Your task to perform on an android device: Open the calendar and show me this week's events Image 0: 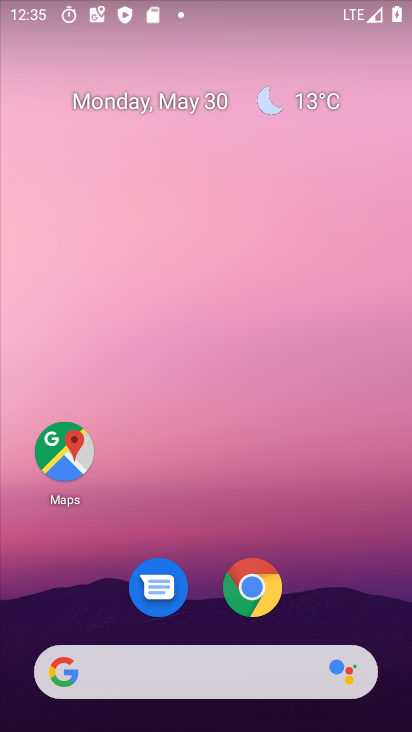
Step 0: drag from (334, 559) to (230, 145)
Your task to perform on an android device: Open the calendar and show me this week's events Image 1: 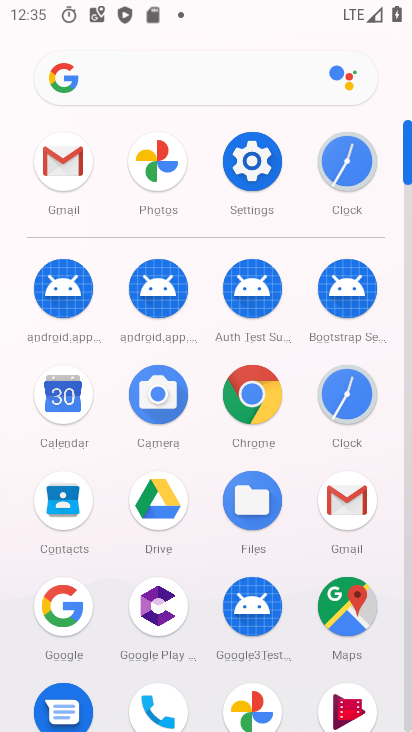
Step 1: click (64, 386)
Your task to perform on an android device: Open the calendar and show me this week's events Image 2: 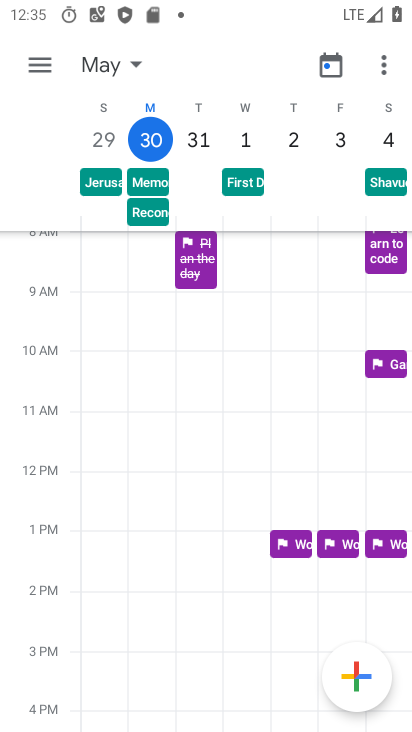
Step 2: task complete